Your task to perform on an android device: turn off data saver in the chrome app Image 0: 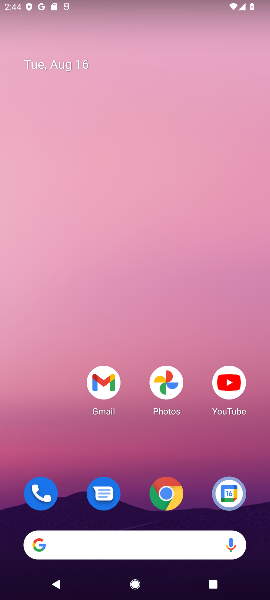
Step 0: press home button
Your task to perform on an android device: turn off data saver in the chrome app Image 1: 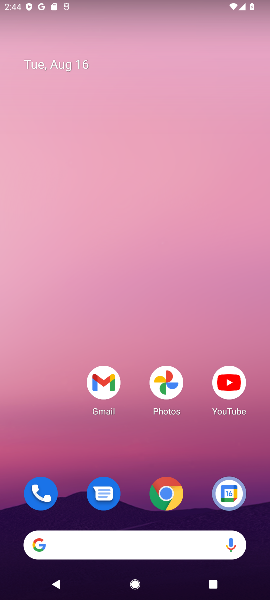
Step 1: drag from (52, 434) to (60, 93)
Your task to perform on an android device: turn off data saver in the chrome app Image 2: 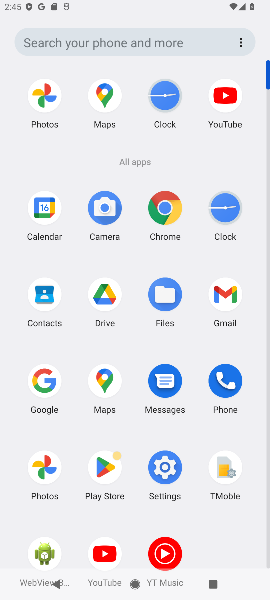
Step 2: click (164, 210)
Your task to perform on an android device: turn off data saver in the chrome app Image 3: 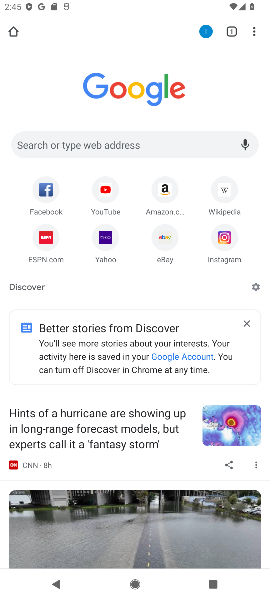
Step 3: click (252, 30)
Your task to perform on an android device: turn off data saver in the chrome app Image 4: 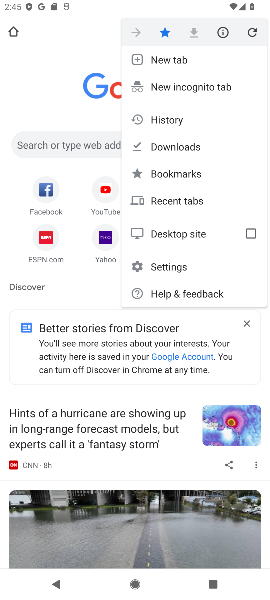
Step 4: click (179, 268)
Your task to perform on an android device: turn off data saver in the chrome app Image 5: 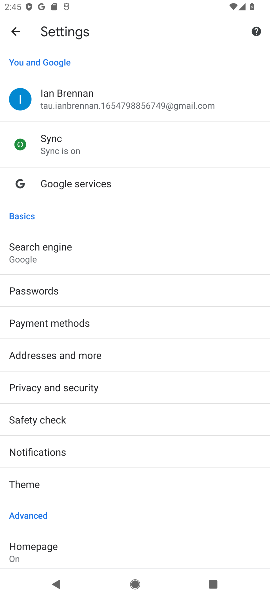
Step 5: drag from (202, 358) to (214, 296)
Your task to perform on an android device: turn off data saver in the chrome app Image 6: 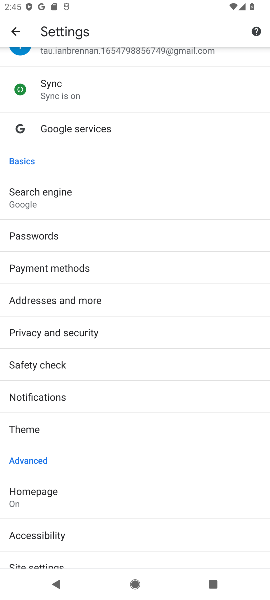
Step 6: drag from (205, 361) to (216, 308)
Your task to perform on an android device: turn off data saver in the chrome app Image 7: 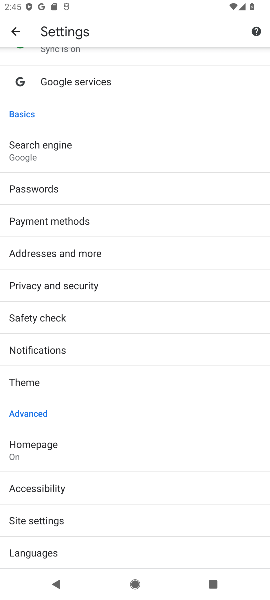
Step 7: drag from (195, 364) to (216, 308)
Your task to perform on an android device: turn off data saver in the chrome app Image 8: 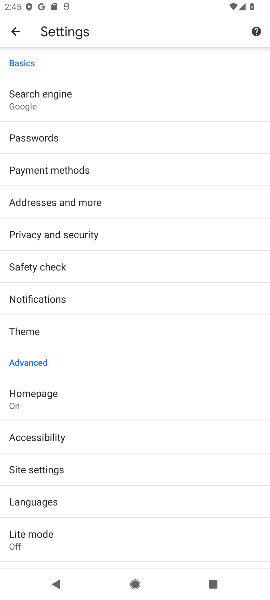
Step 8: drag from (218, 357) to (222, 302)
Your task to perform on an android device: turn off data saver in the chrome app Image 9: 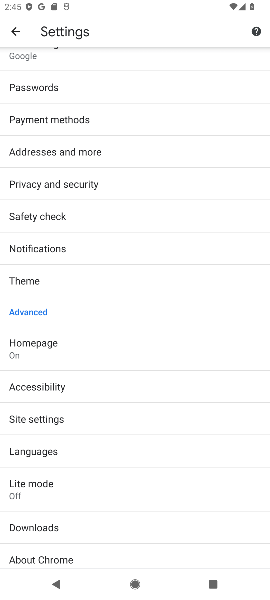
Step 9: drag from (219, 399) to (227, 295)
Your task to perform on an android device: turn off data saver in the chrome app Image 10: 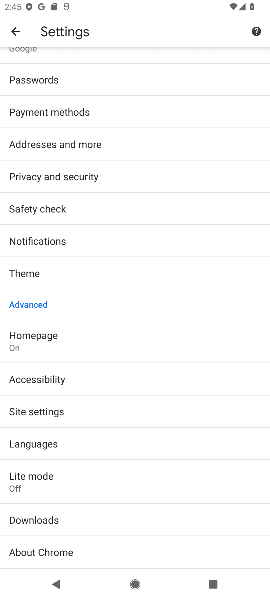
Step 10: click (202, 474)
Your task to perform on an android device: turn off data saver in the chrome app Image 11: 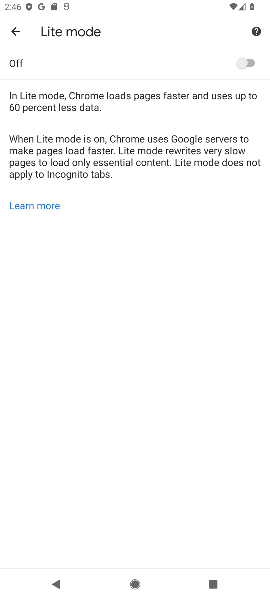
Step 11: task complete